Your task to perform on an android device: Show me recent news Image 0: 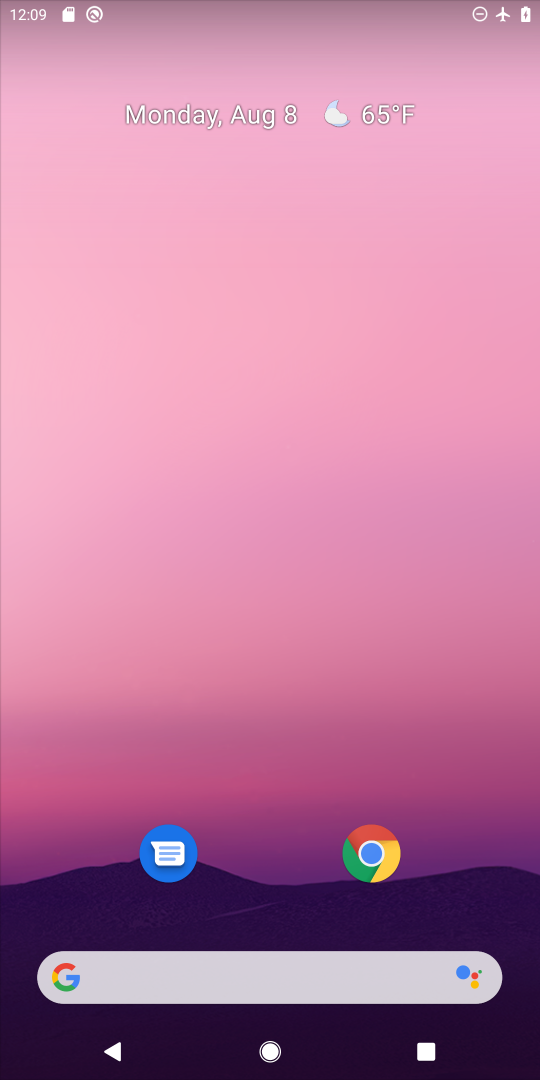
Step 0: drag from (218, 904) to (265, 280)
Your task to perform on an android device: Show me recent news Image 1: 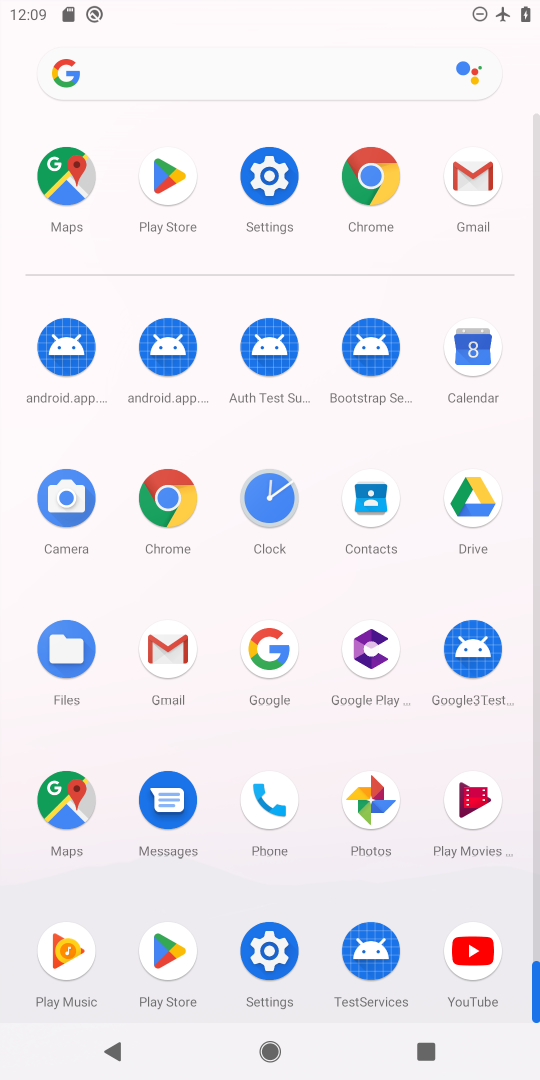
Step 1: click (369, 156)
Your task to perform on an android device: Show me recent news Image 2: 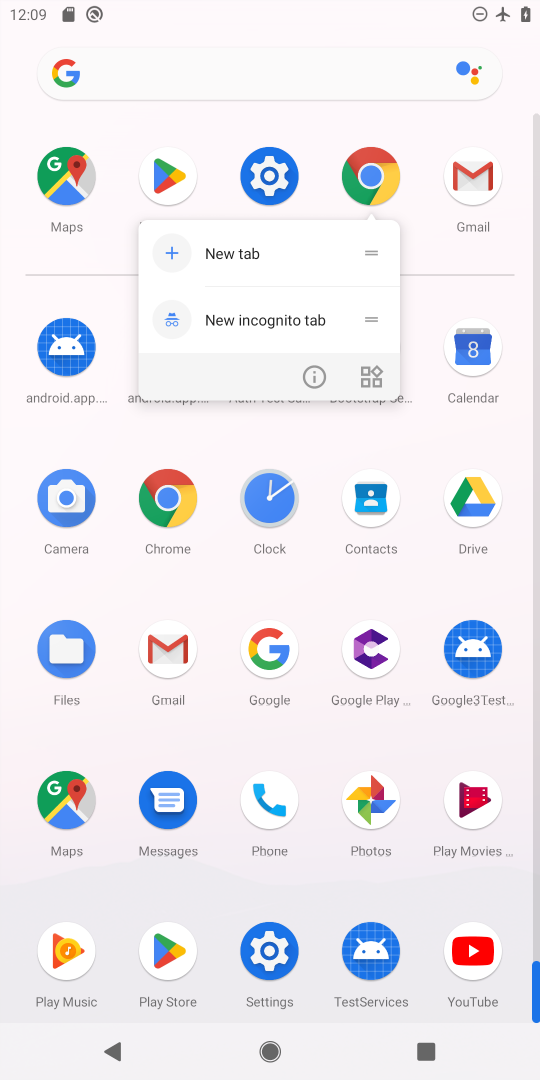
Step 2: click (376, 166)
Your task to perform on an android device: Show me recent news Image 3: 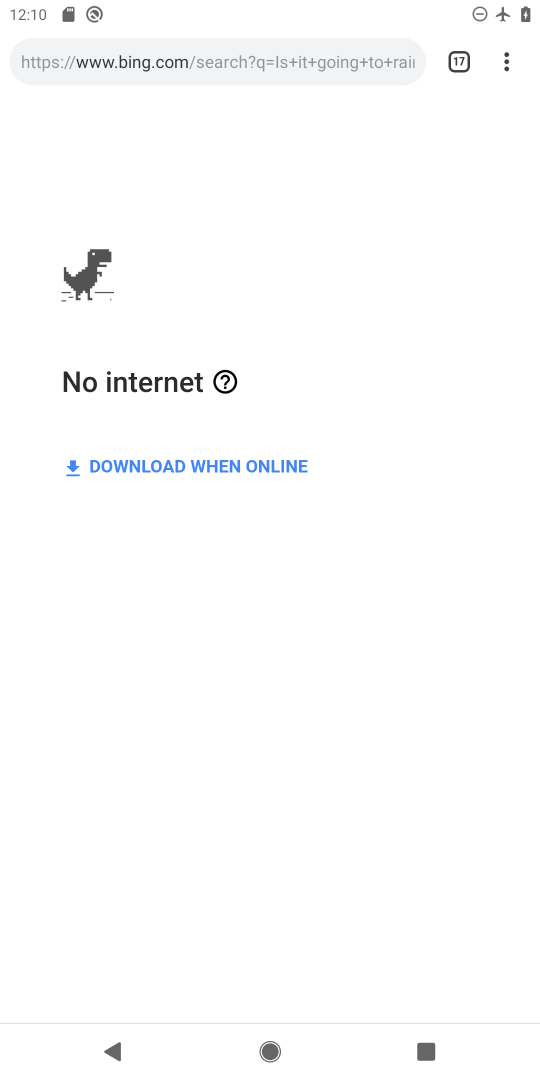
Step 3: click (506, 50)
Your task to perform on an android device: Show me recent news Image 4: 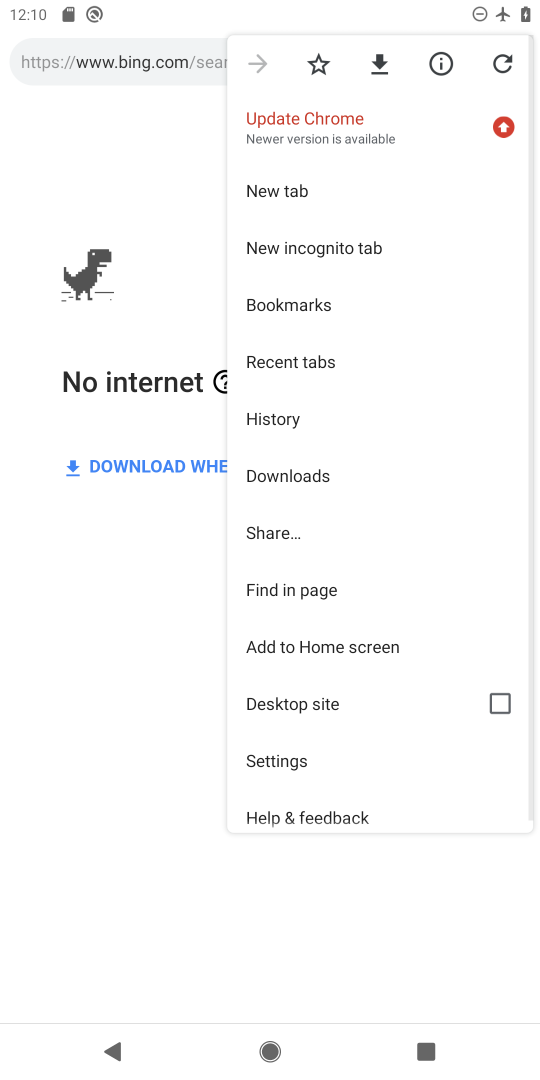
Step 4: click (299, 184)
Your task to perform on an android device: Show me recent news Image 5: 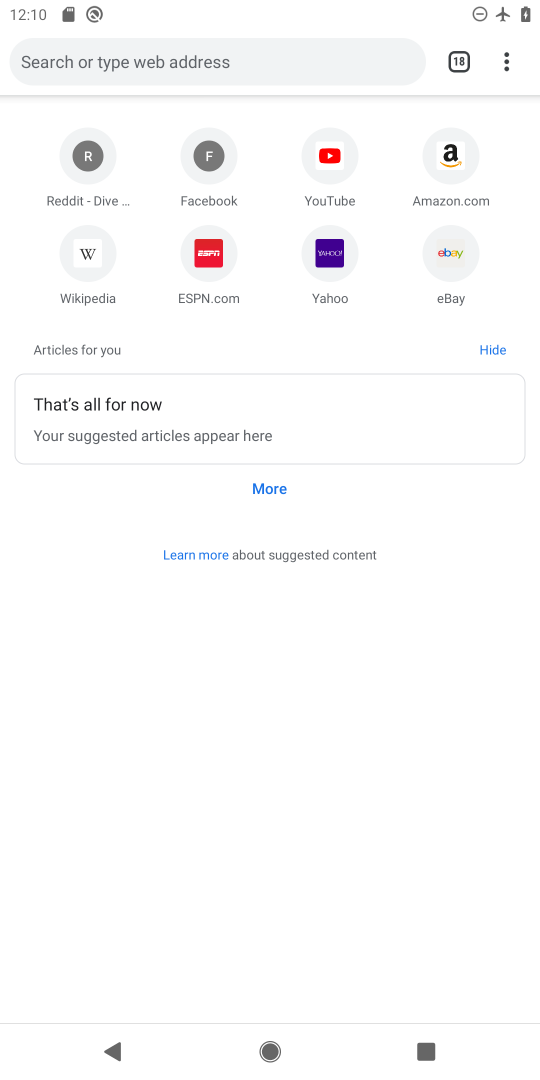
Step 5: click (269, 45)
Your task to perform on an android device: Show me recent news Image 6: 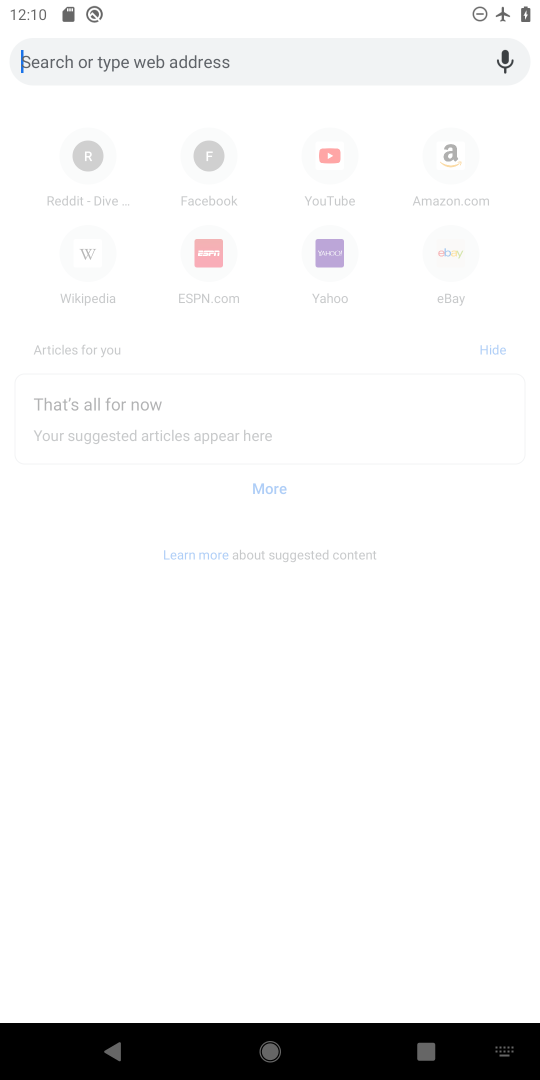
Step 6: type "Show me recent news "
Your task to perform on an android device: Show me recent news Image 7: 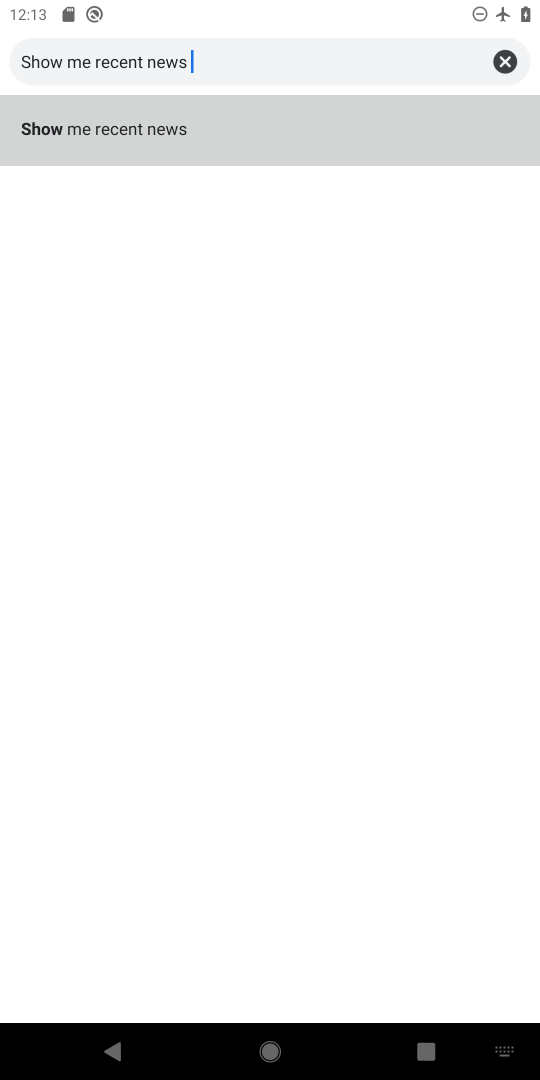
Step 7: click (459, 130)
Your task to perform on an android device: Show me recent news Image 8: 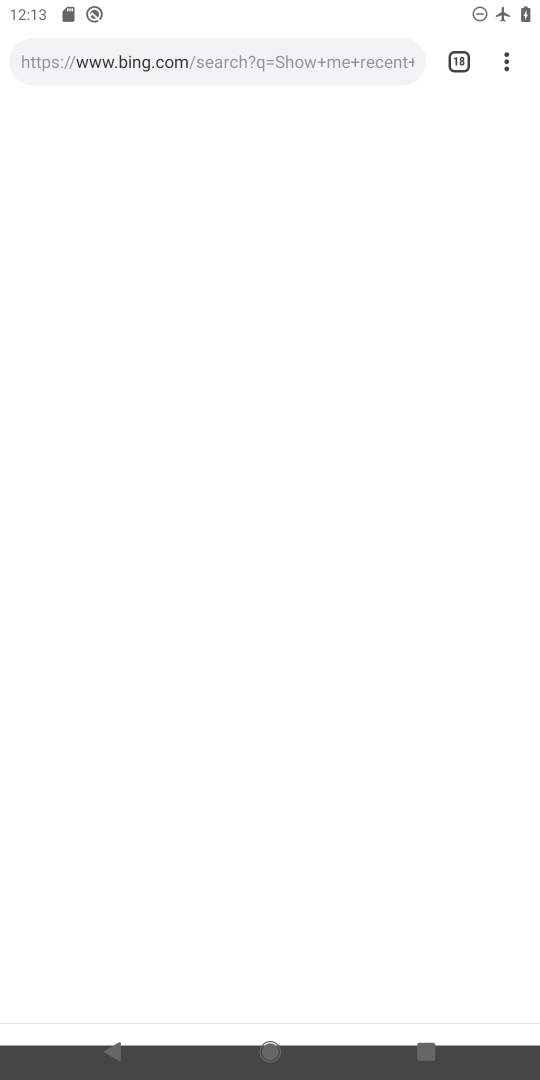
Step 8: task complete